Your task to perform on an android device: Show me popular games on the Play Store Image 0: 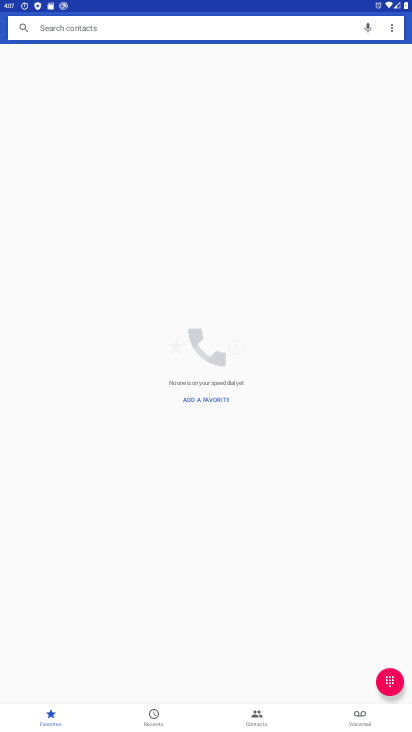
Step 0: press home button
Your task to perform on an android device: Show me popular games on the Play Store Image 1: 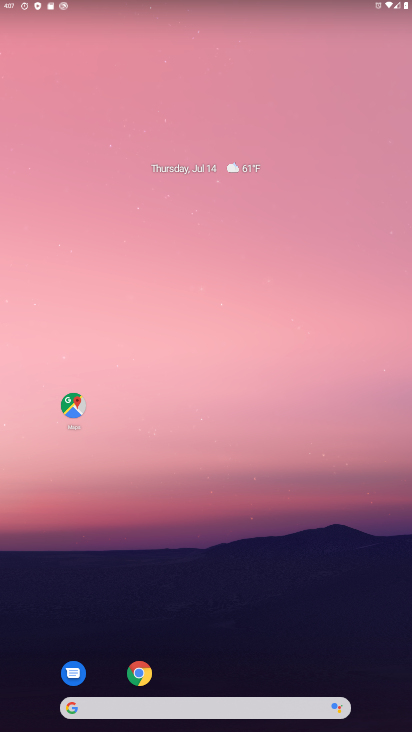
Step 1: drag from (184, 644) to (171, 57)
Your task to perform on an android device: Show me popular games on the Play Store Image 2: 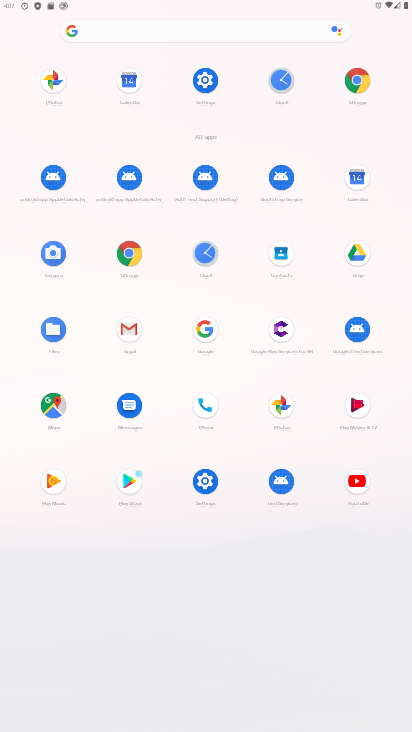
Step 2: click (139, 487)
Your task to perform on an android device: Show me popular games on the Play Store Image 3: 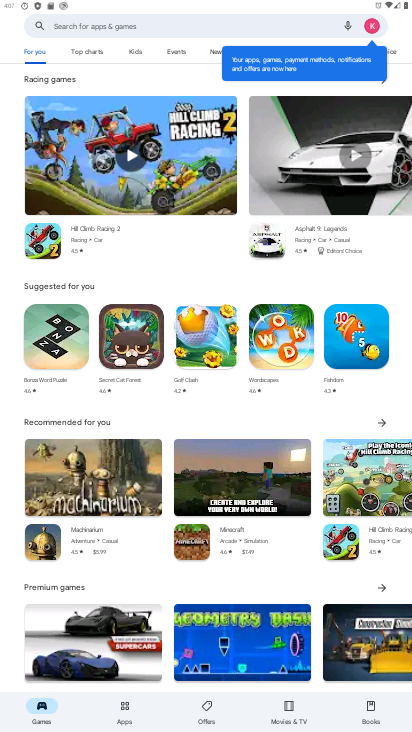
Step 3: task complete